Your task to perform on an android device: Open location settings Image 0: 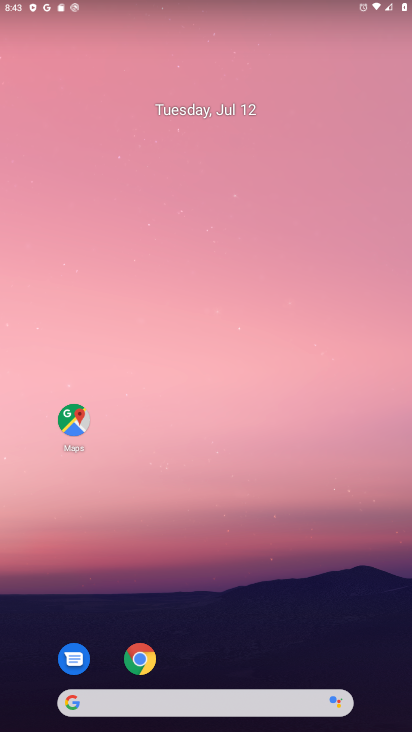
Step 0: drag from (347, 612) to (225, 185)
Your task to perform on an android device: Open location settings Image 1: 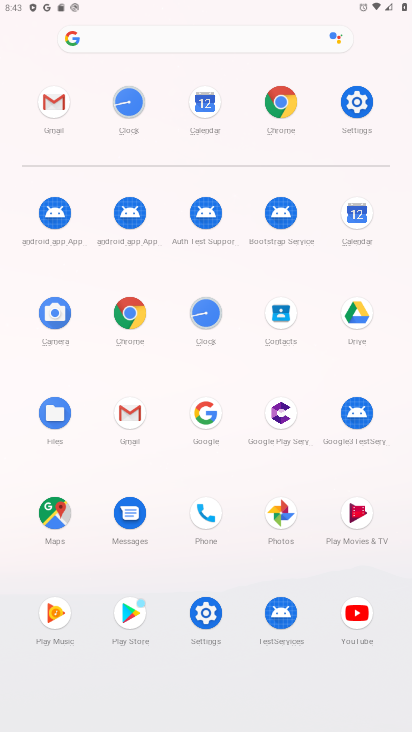
Step 1: click (213, 617)
Your task to perform on an android device: Open location settings Image 2: 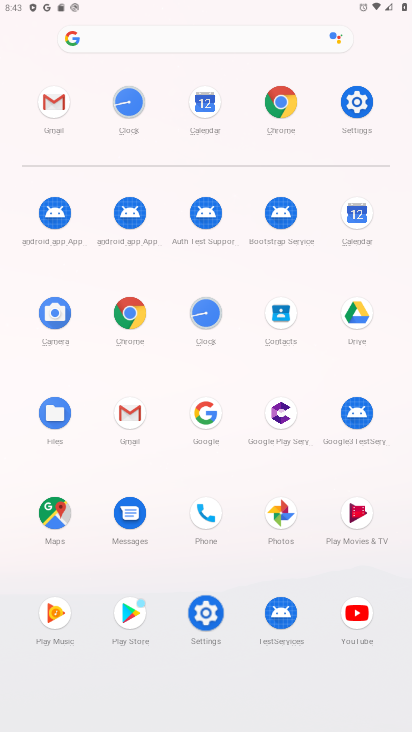
Step 2: click (212, 616)
Your task to perform on an android device: Open location settings Image 3: 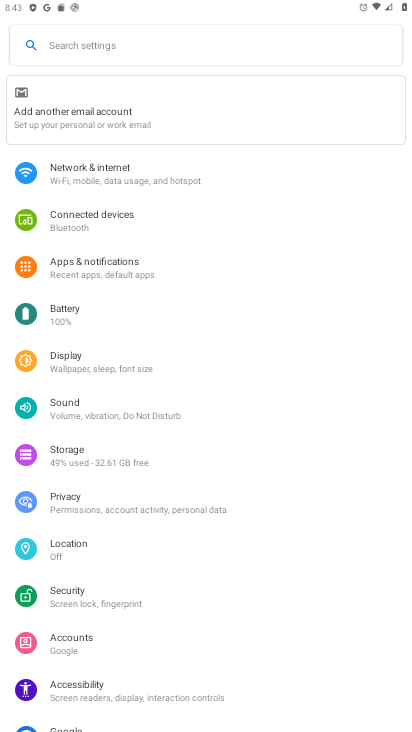
Step 3: click (66, 545)
Your task to perform on an android device: Open location settings Image 4: 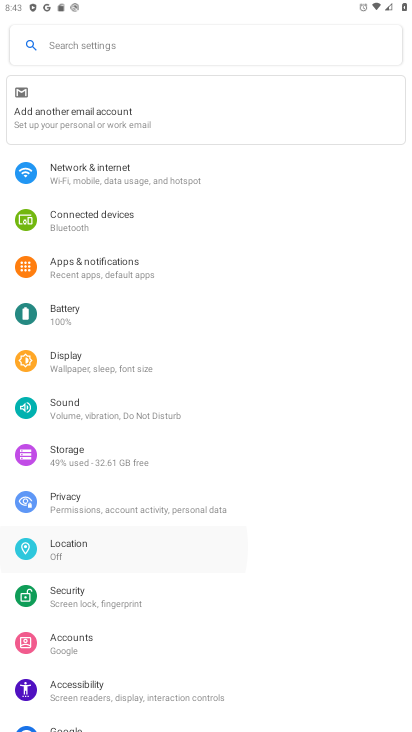
Step 4: click (66, 545)
Your task to perform on an android device: Open location settings Image 5: 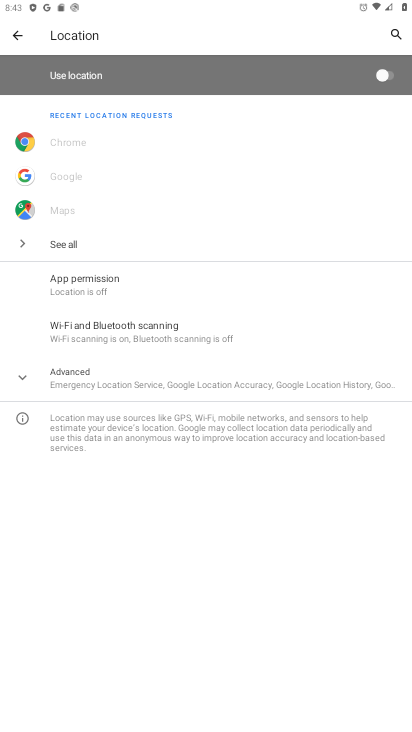
Step 5: click (92, 375)
Your task to perform on an android device: Open location settings Image 6: 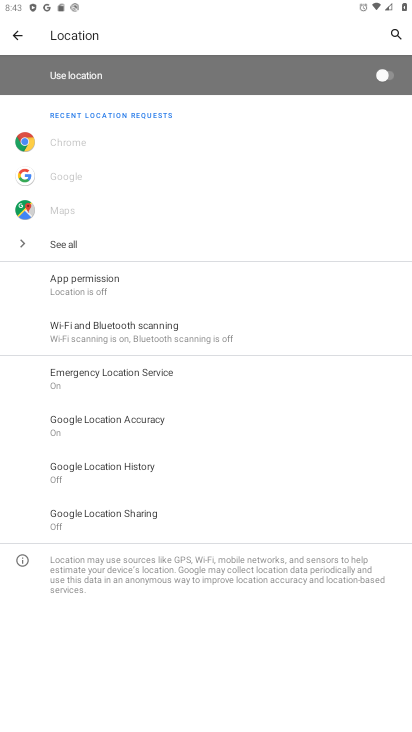
Step 6: task complete